Your task to perform on an android device: Open calendar and show me the fourth week of next month Image 0: 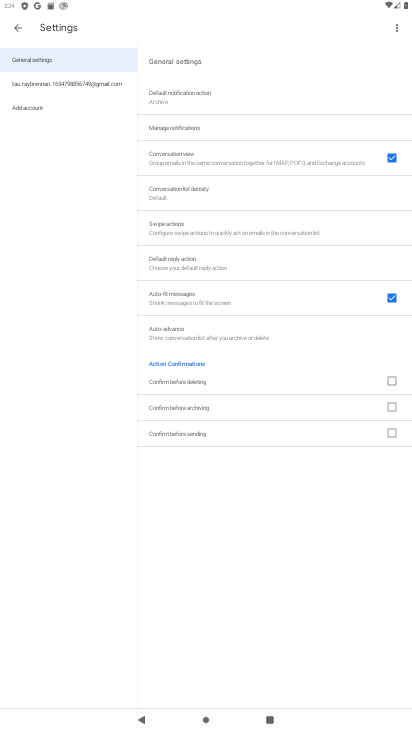
Step 0: press home button
Your task to perform on an android device: Open calendar and show me the fourth week of next month Image 1: 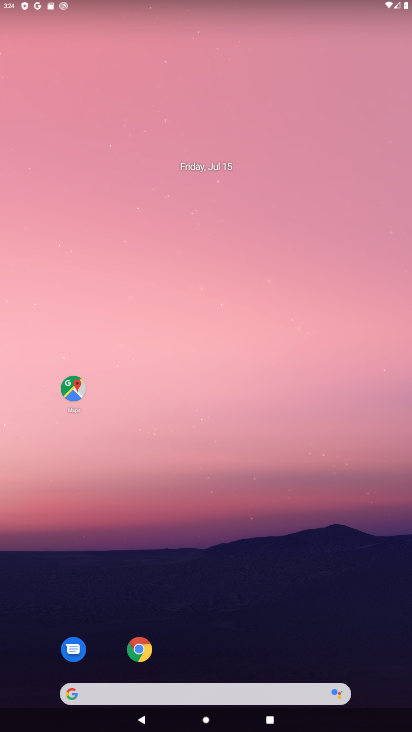
Step 1: drag from (203, 646) to (212, 214)
Your task to perform on an android device: Open calendar and show me the fourth week of next month Image 2: 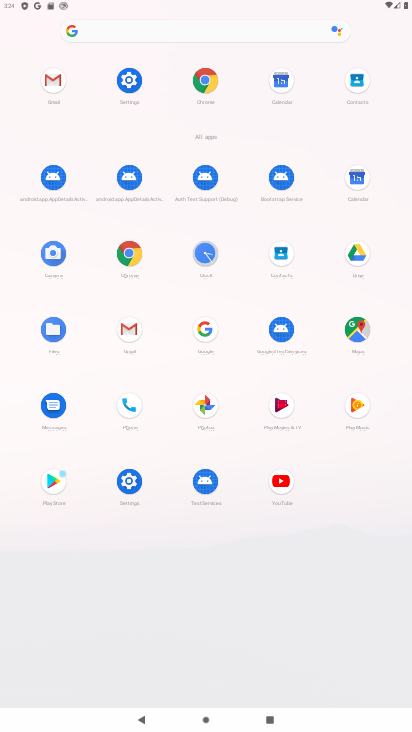
Step 2: click (349, 176)
Your task to perform on an android device: Open calendar and show me the fourth week of next month Image 3: 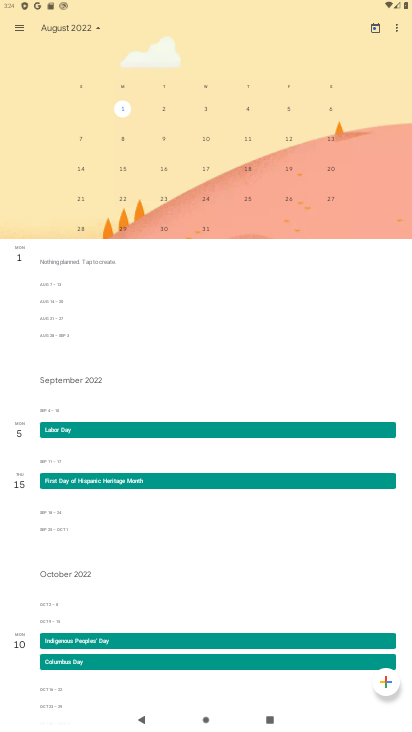
Step 3: click (87, 28)
Your task to perform on an android device: Open calendar and show me the fourth week of next month Image 4: 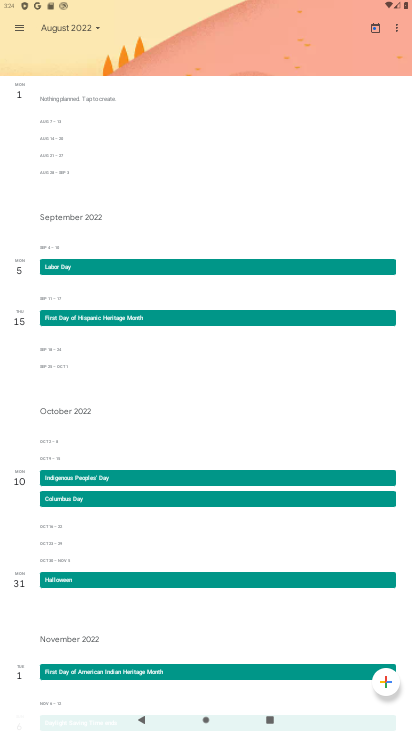
Step 4: click (95, 31)
Your task to perform on an android device: Open calendar and show me the fourth week of next month Image 5: 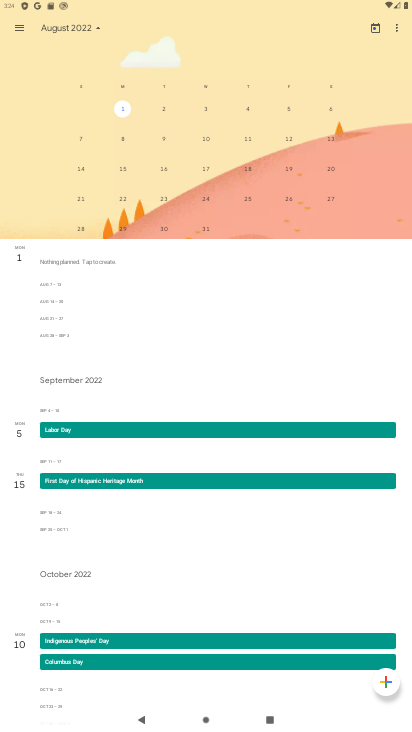
Step 5: click (85, 198)
Your task to perform on an android device: Open calendar and show me the fourth week of next month Image 6: 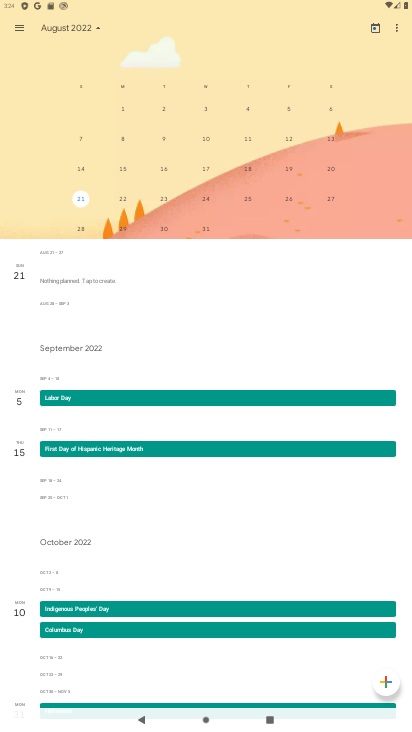
Step 6: task complete